Your task to perform on an android device: delete the emails in spam in the gmail app Image 0: 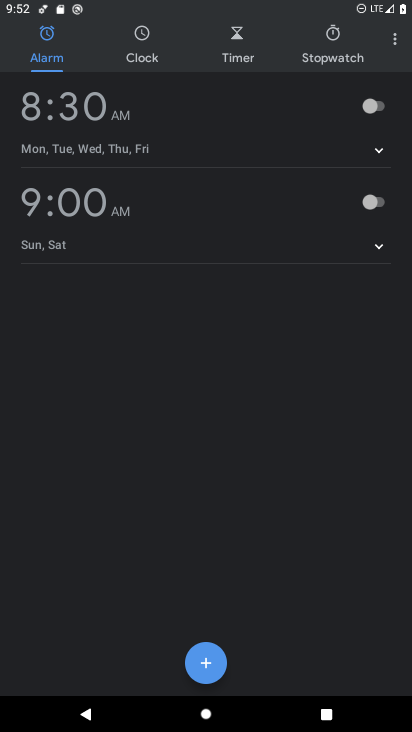
Step 0: press home button
Your task to perform on an android device: delete the emails in spam in the gmail app Image 1: 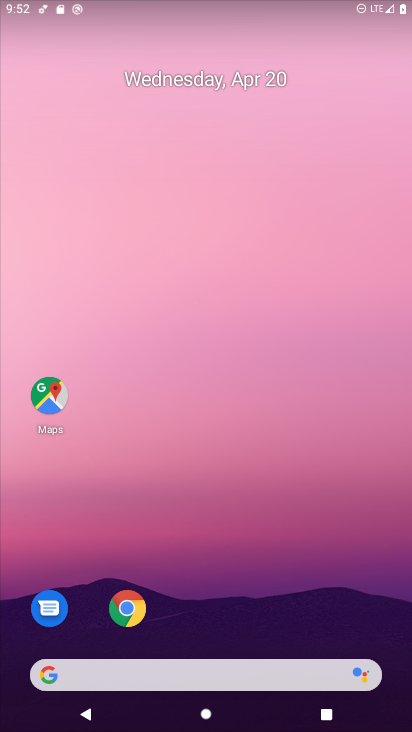
Step 1: drag from (200, 466) to (287, 0)
Your task to perform on an android device: delete the emails in spam in the gmail app Image 2: 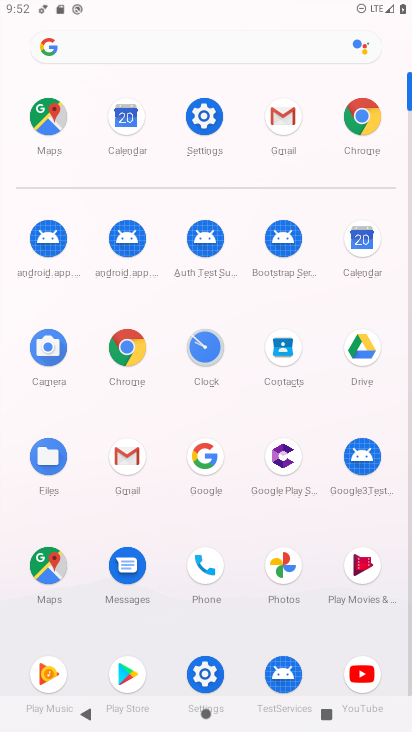
Step 2: click (121, 444)
Your task to perform on an android device: delete the emails in spam in the gmail app Image 3: 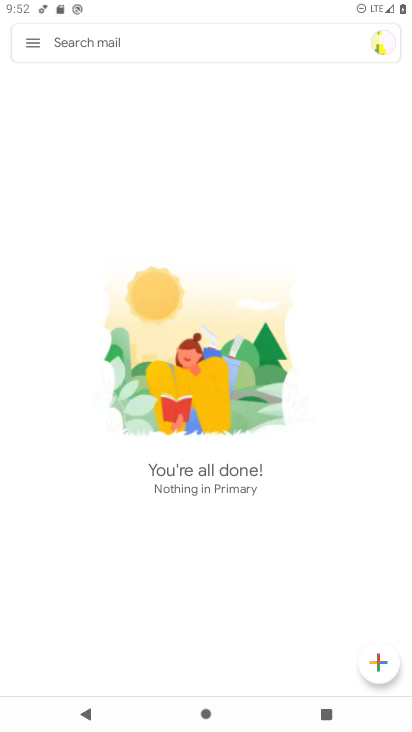
Step 3: click (26, 41)
Your task to perform on an android device: delete the emails in spam in the gmail app Image 4: 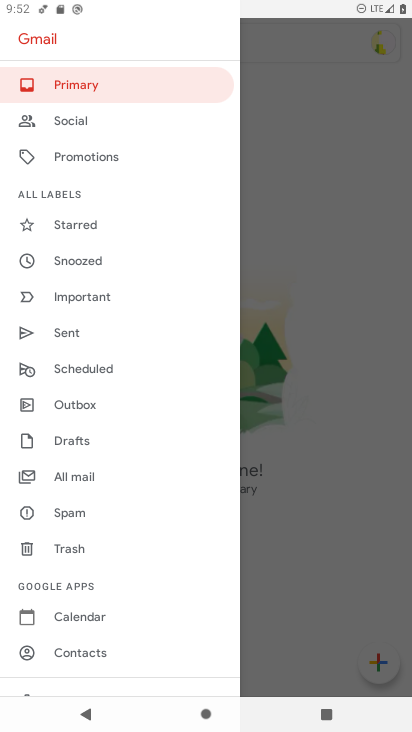
Step 4: click (74, 504)
Your task to perform on an android device: delete the emails in spam in the gmail app Image 5: 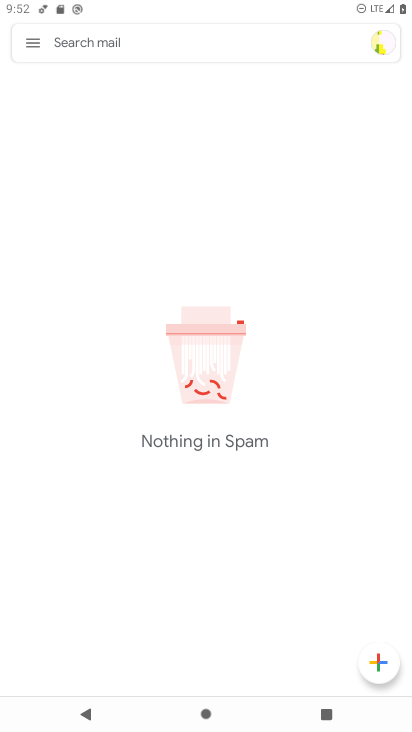
Step 5: task complete